Your task to perform on an android device: turn off data saver in the chrome app Image 0: 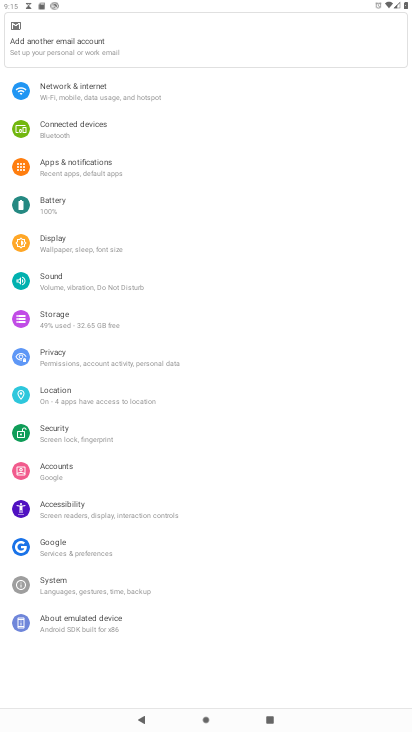
Step 0: press home button
Your task to perform on an android device: turn off data saver in the chrome app Image 1: 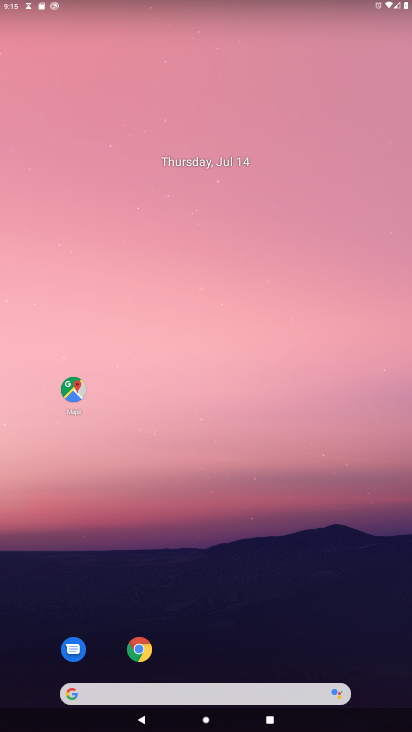
Step 1: drag from (221, 644) to (219, 27)
Your task to perform on an android device: turn off data saver in the chrome app Image 2: 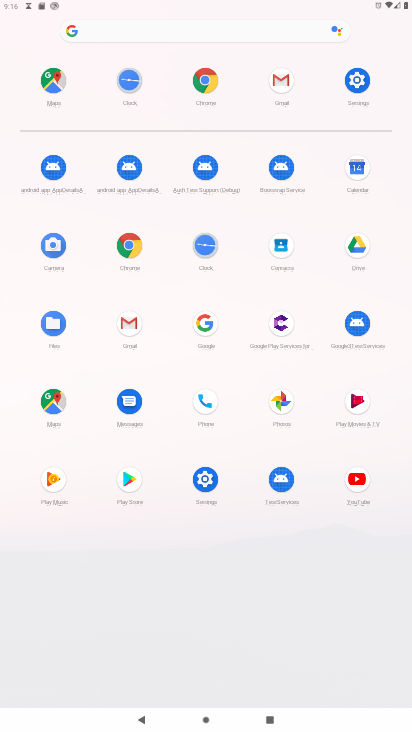
Step 2: click (137, 250)
Your task to perform on an android device: turn off data saver in the chrome app Image 3: 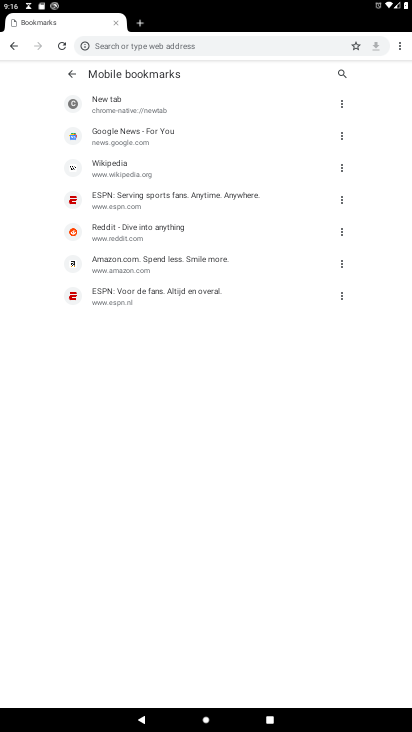
Step 3: click (398, 43)
Your task to perform on an android device: turn off data saver in the chrome app Image 4: 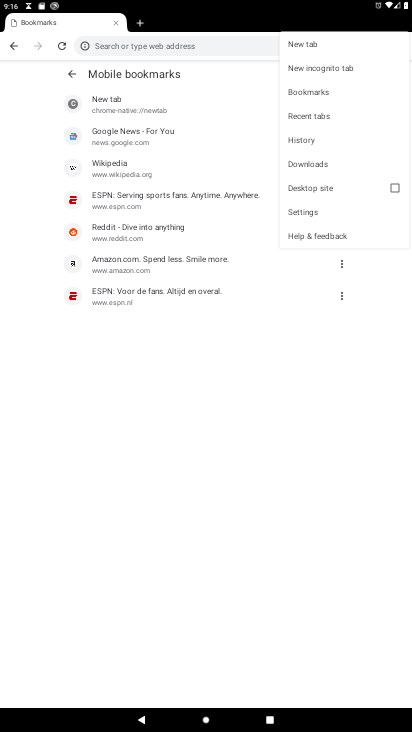
Step 4: click (307, 209)
Your task to perform on an android device: turn off data saver in the chrome app Image 5: 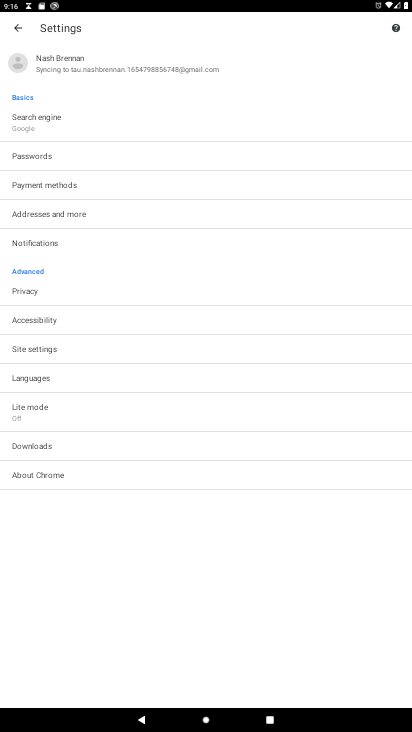
Step 5: click (40, 410)
Your task to perform on an android device: turn off data saver in the chrome app Image 6: 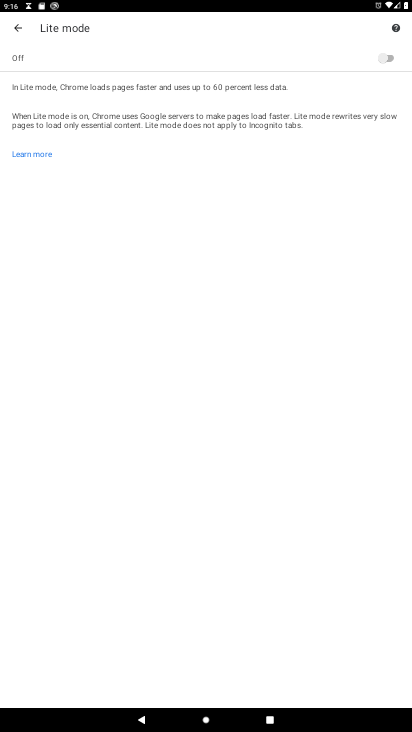
Step 6: task complete